Your task to perform on an android device: Open Google Image 0: 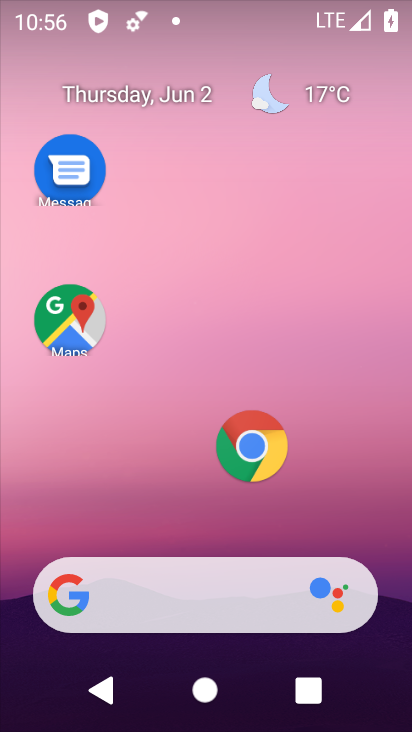
Step 0: drag from (159, 512) to (103, 203)
Your task to perform on an android device: Open Google Image 1: 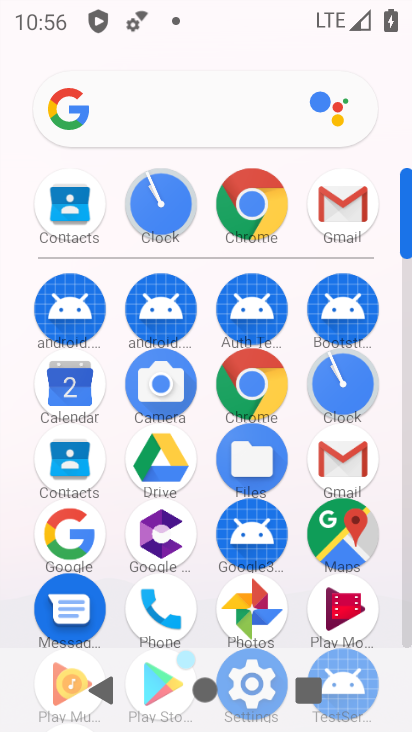
Step 1: click (77, 548)
Your task to perform on an android device: Open Google Image 2: 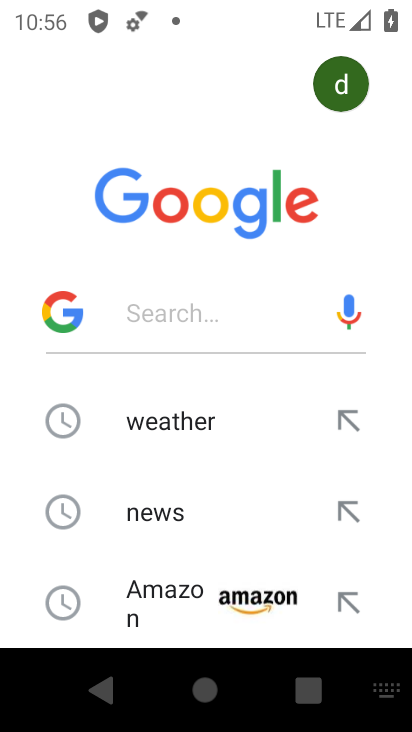
Step 2: task complete